Your task to perform on an android device: clear history in the chrome app Image 0: 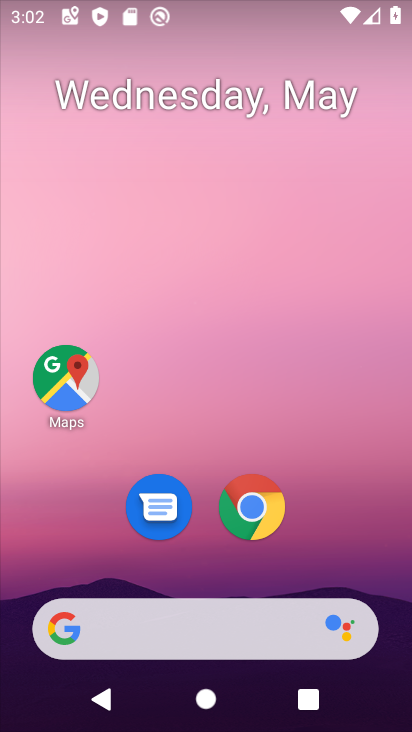
Step 0: click (257, 504)
Your task to perform on an android device: clear history in the chrome app Image 1: 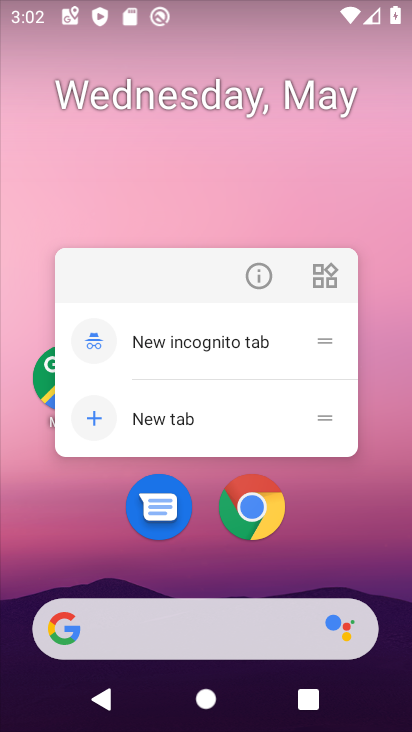
Step 1: click (257, 504)
Your task to perform on an android device: clear history in the chrome app Image 2: 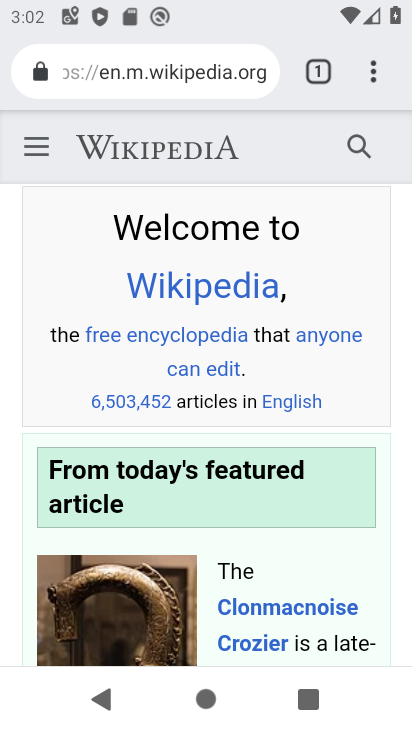
Step 2: click (369, 69)
Your task to perform on an android device: clear history in the chrome app Image 3: 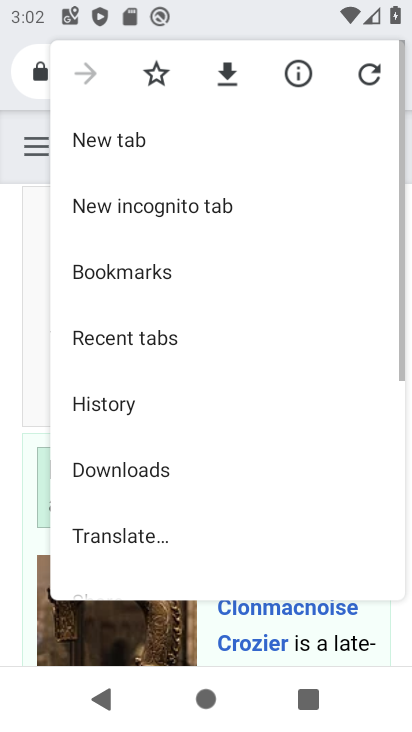
Step 3: drag from (125, 510) to (171, 83)
Your task to perform on an android device: clear history in the chrome app Image 4: 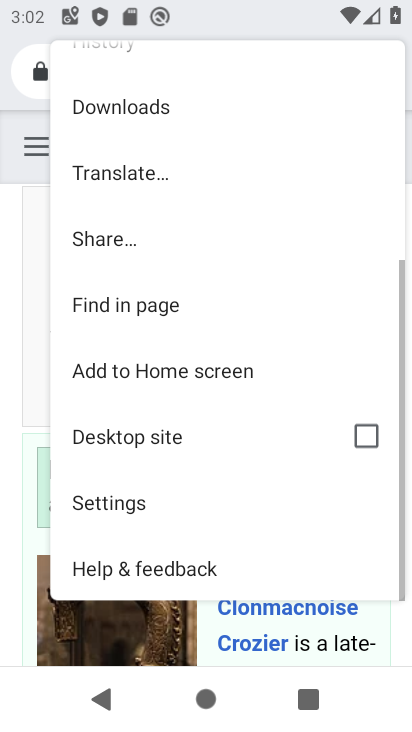
Step 4: click (94, 502)
Your task to perform on an android device: clear history in the chrome app Image 5: 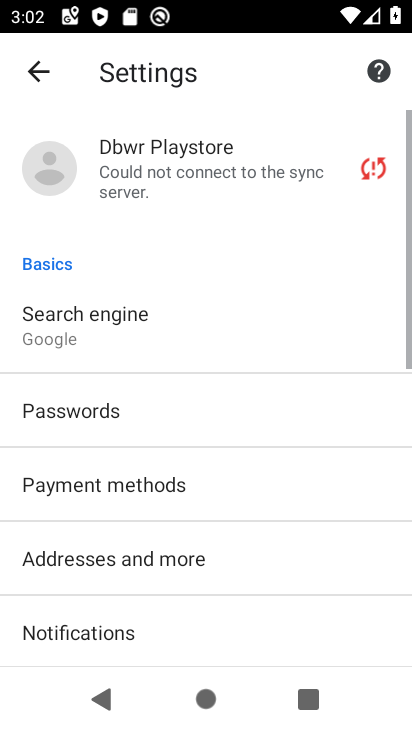
Step 5: drag from (235, 555) to (235, 340)
Your task to perform on an android device: clear history in the chrome app Image 6: 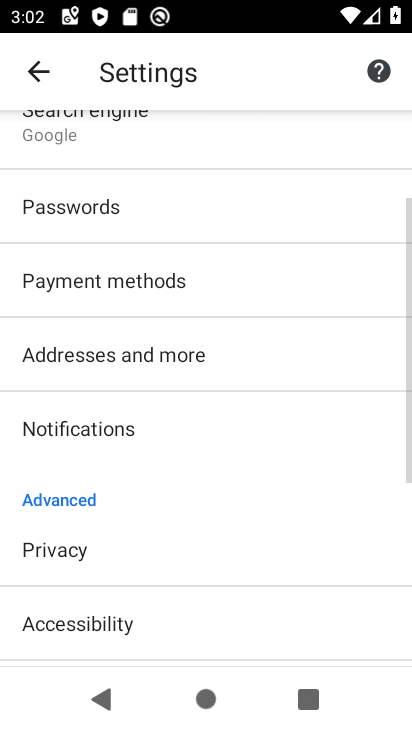
Step 6: press back button
Your task to perform on an android device: clear history in the chrome app Image 7: 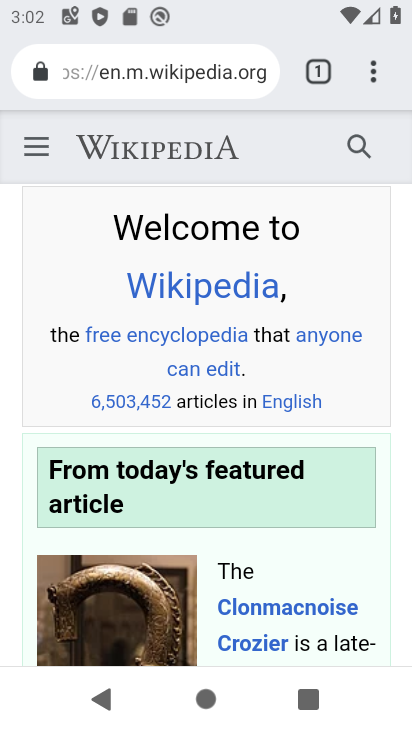
Step 7: click (360, 65)
Your task to perform on an android device: clear history in the chrome app Image 8: 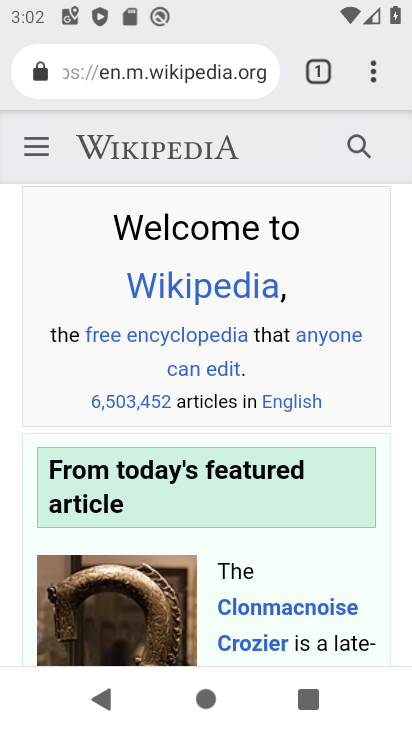
Step 8: click (360, 81)
Your task to perform on an android device: clear history in the chrome app Image 9: 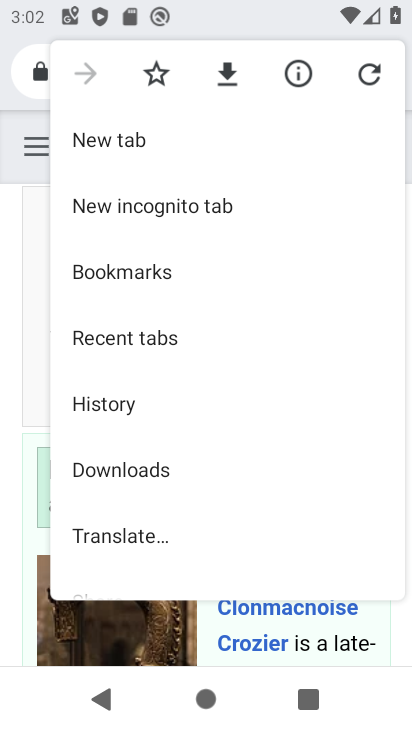
Step 9: click (135, 405)
Your task to perform on an android device: clear history in the chrome app Image 10: 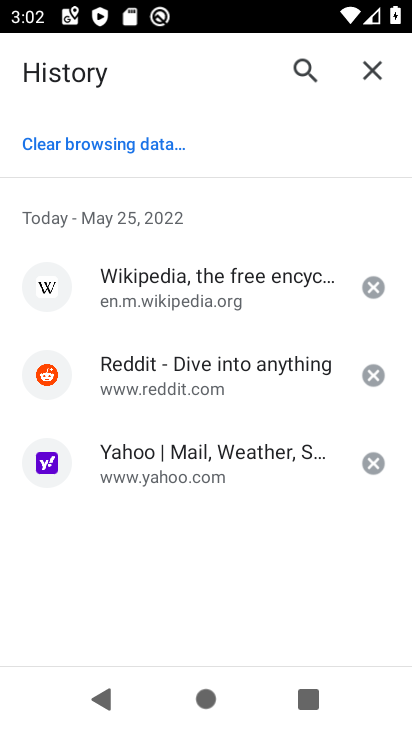
Step 10: click (153, 131)
Your task to perform on an android device: clear history in the chrome app Image 11: 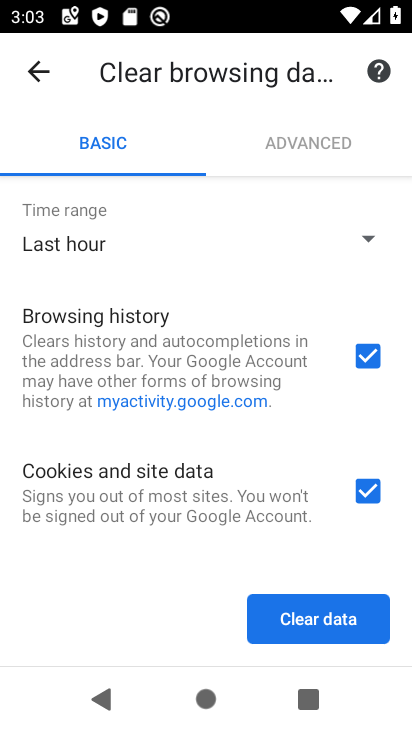
Step 11: click (366, 484)
Your task to perform on an android device: clear history in the chrome app Image 12: 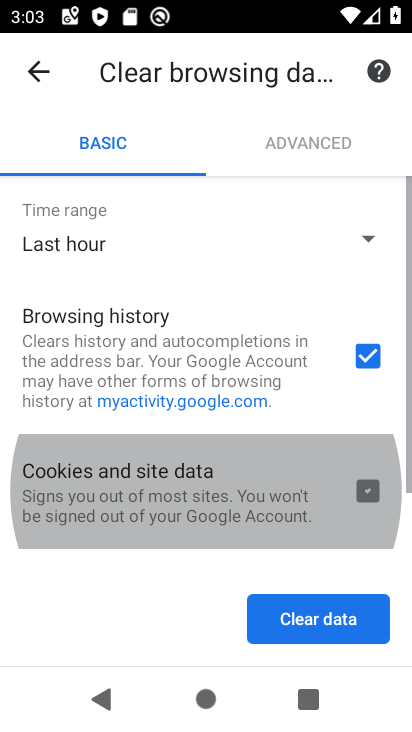
Step 12: drag from (286, 447) to (284, 136)
Your task to perform on an android device: clear history in the chrome app Image 13: 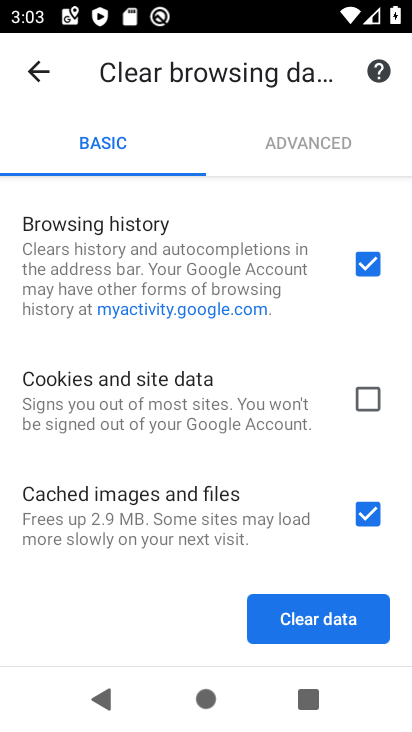
Step 13: click (372, 515)
Your task to perform on an android device: clear history in the chrome app Image 14: 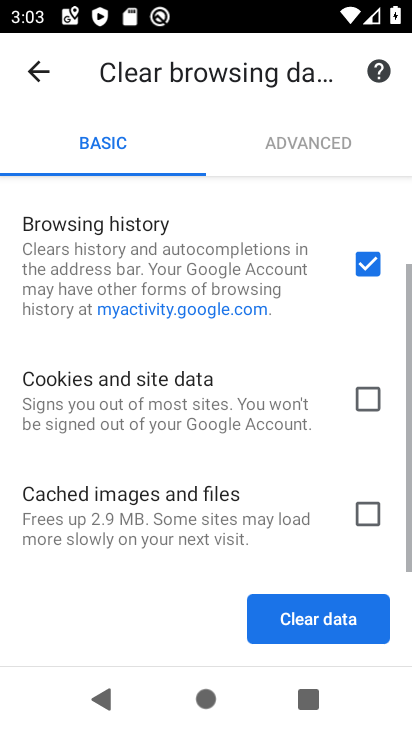
Step 14: click (338, 612)
Your task to perform on an android device: clear history in the chrome app Image 15: 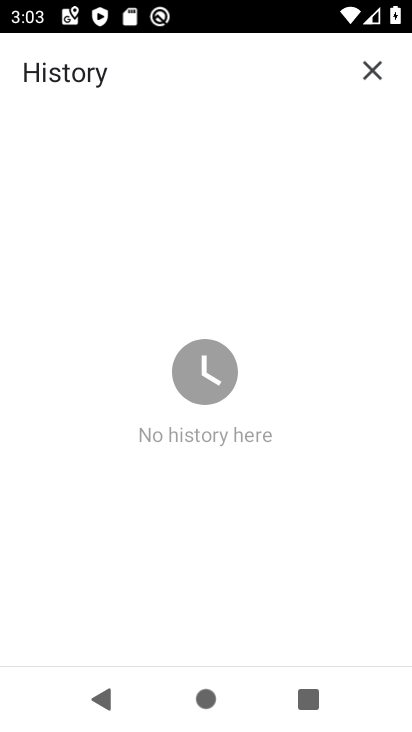
Step 15: task complete